Your task to perform on an android device: What's the weather? Image 0: 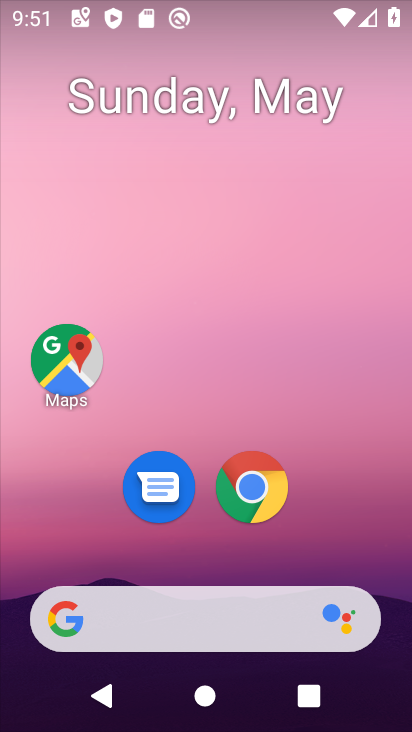
Step 0: click (227, 626)
Your task to perform on an android device: What's the weather? Image 1: 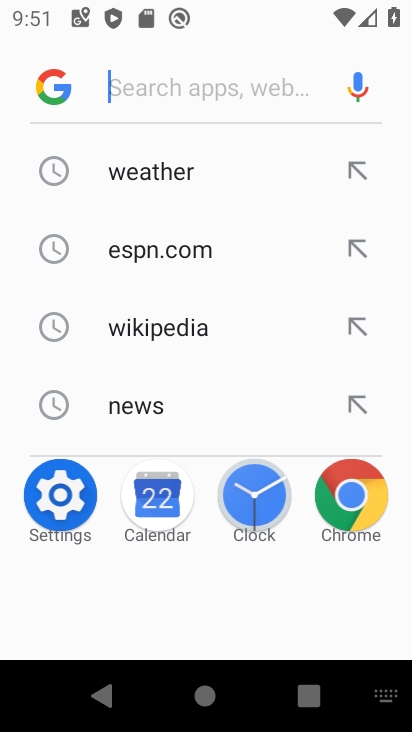
Step 1: click (184, 174)
Your task to perform on an android device: What's the weather? Image 2: 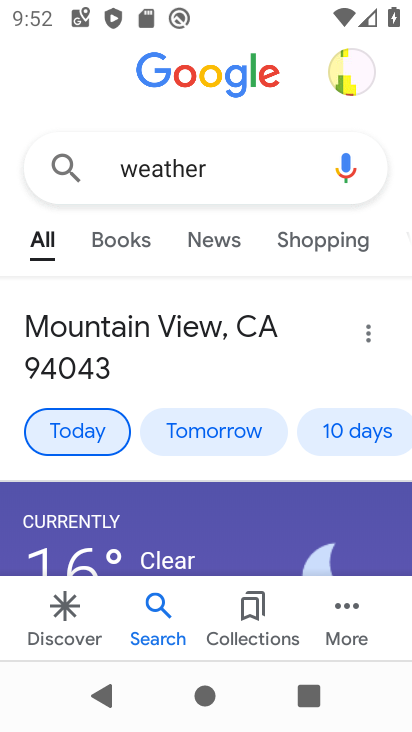
Step 2: task complete